Your task to perform on an android device: Add logitech g933 to the cart on amazon Image 0: 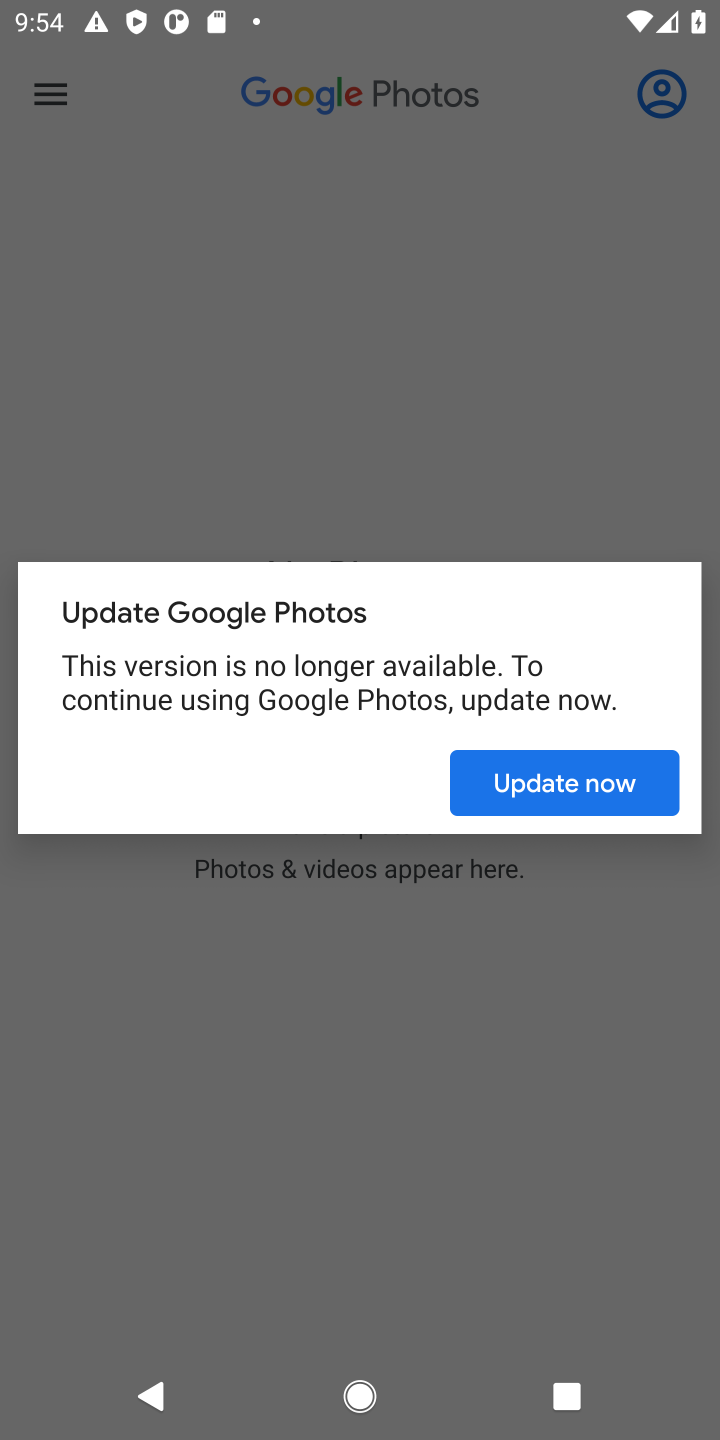
Step 0: press home button
Your task to perform on an android device: Add logitech g933 to the cart on amazon Image 1: 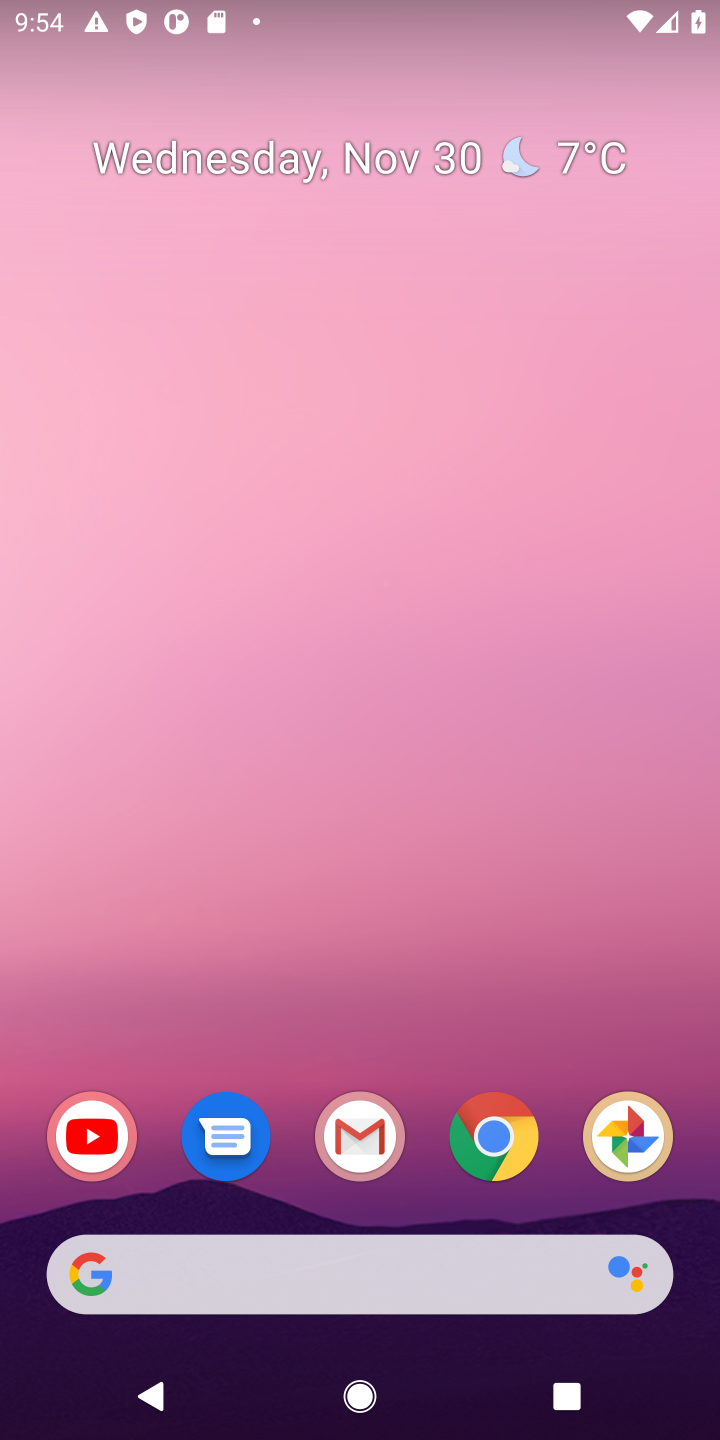
Step 1: click (489, 1154)
Your task to perform on an android device: Add logitech g933 to the cart on amazon Image 2: 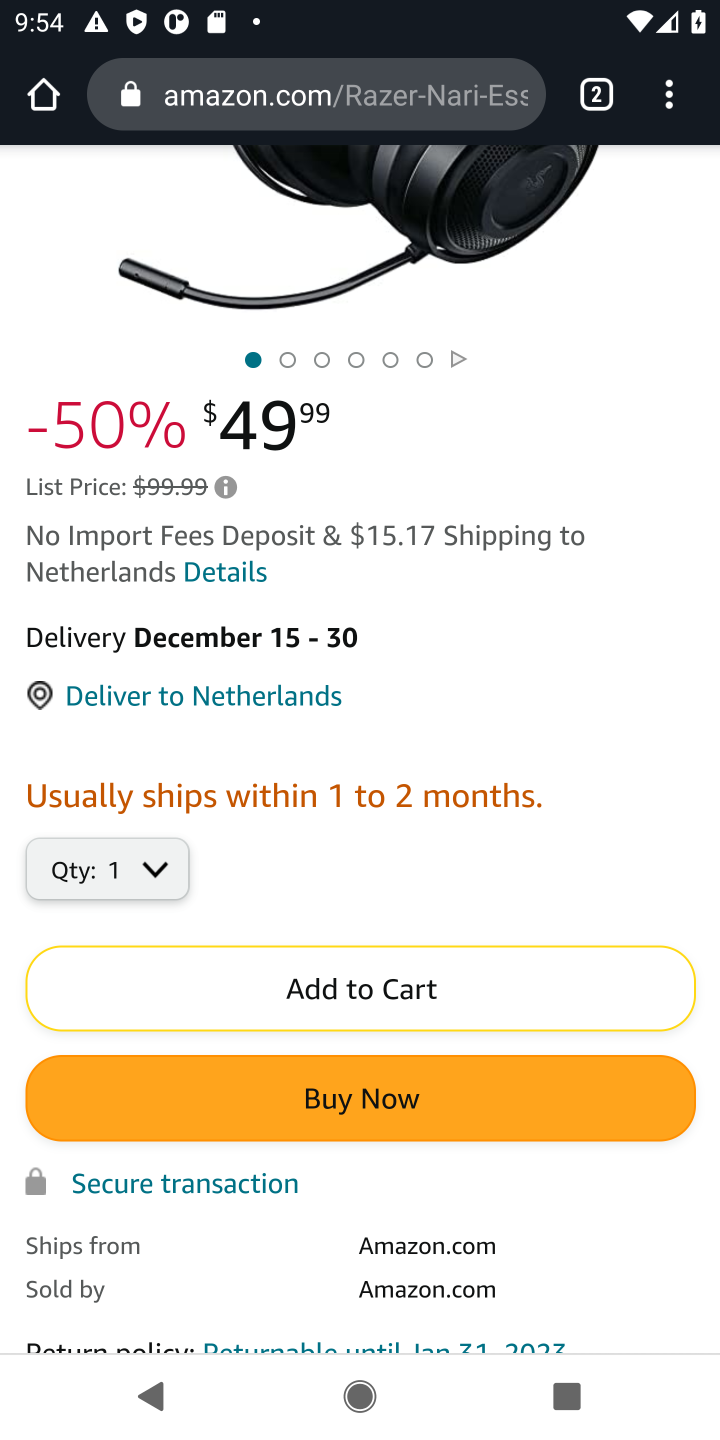
Step 2: drag from (627, 419) to (574, 1123)
Your task to perform on an android device: Add logitech g933 to the cart on amazon Image 3: 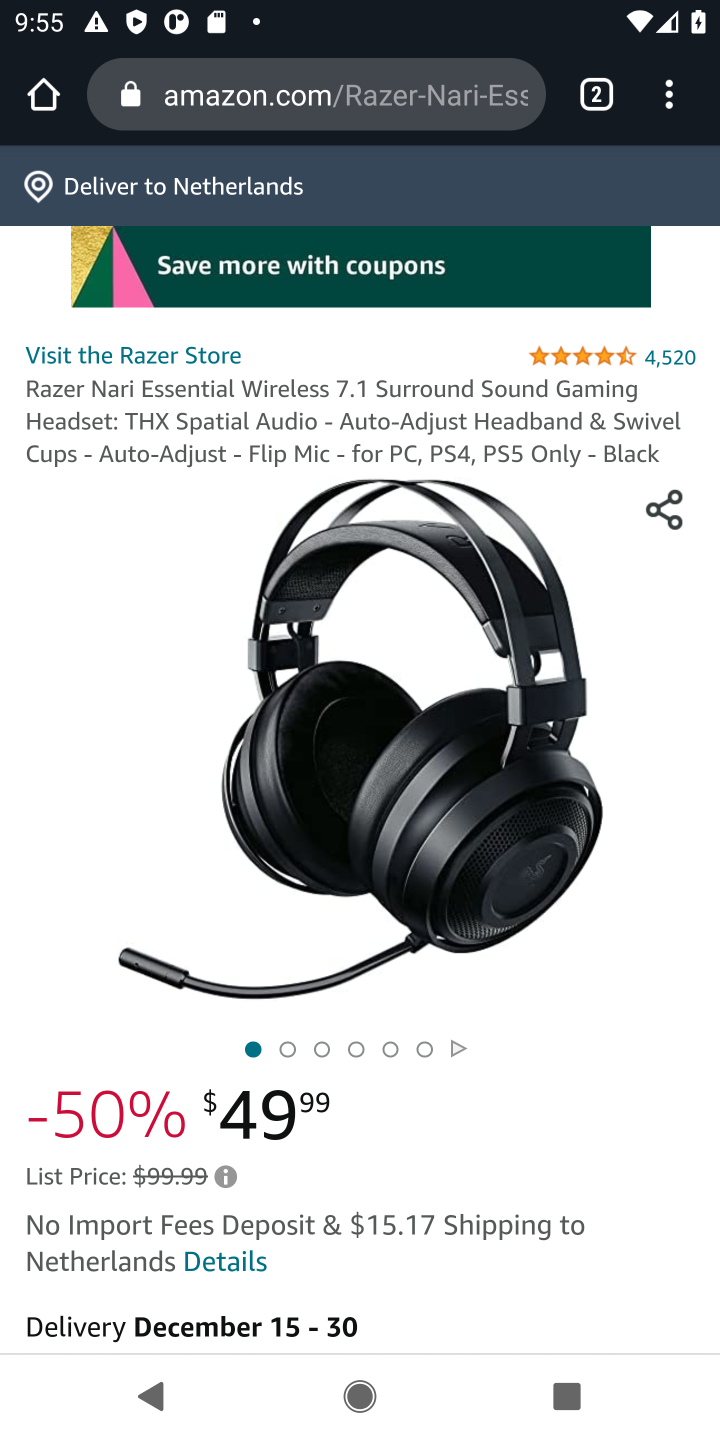
Step 3: drag from (477, 450) to (440, 897)
Your task to perform on an android device: Add logitech g933 to the cart on amazon Image 4: 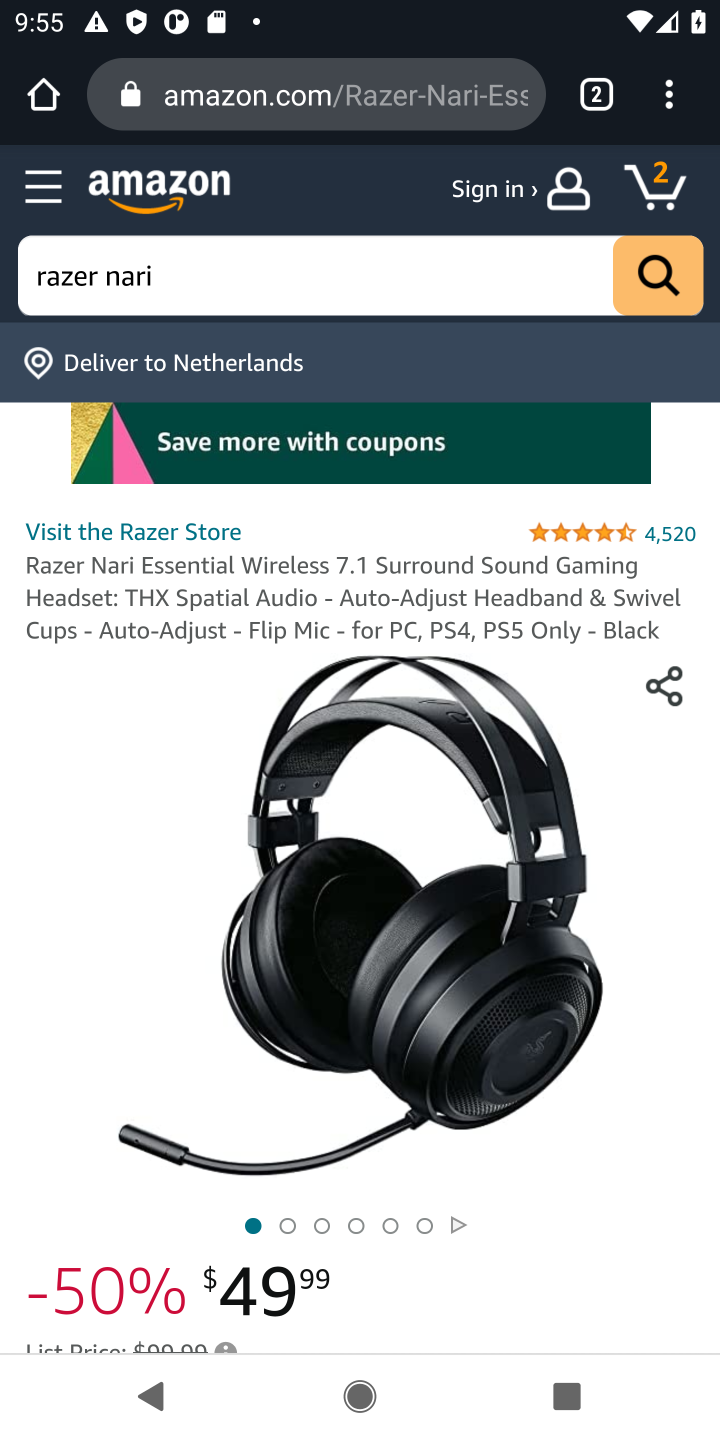
Step 4: click (190, 265)
Your task to perform on an android device: Add logitech g933 to the cart on amazon Image 5: 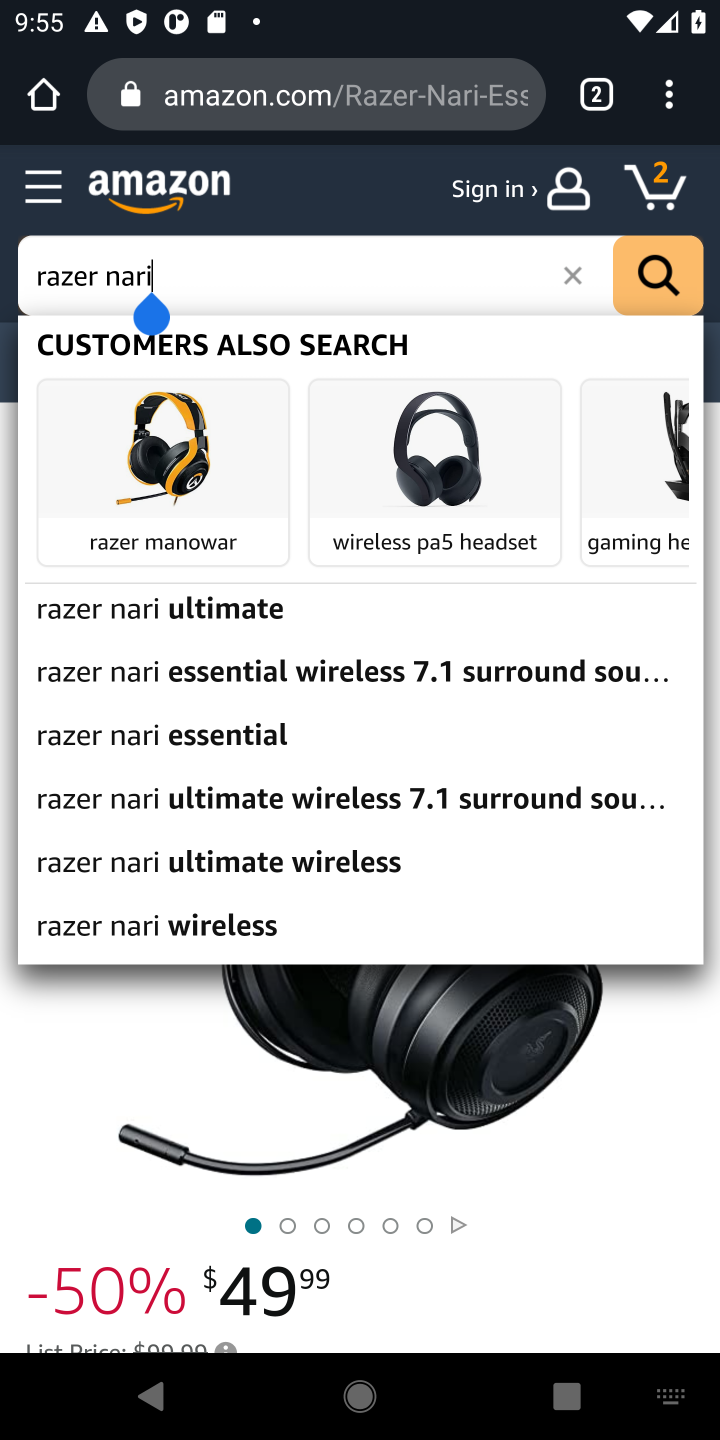
Step 5: click (577, 270)
Your task to perform on an android device: Add logitech g933 to the cart on amazon Image 6: 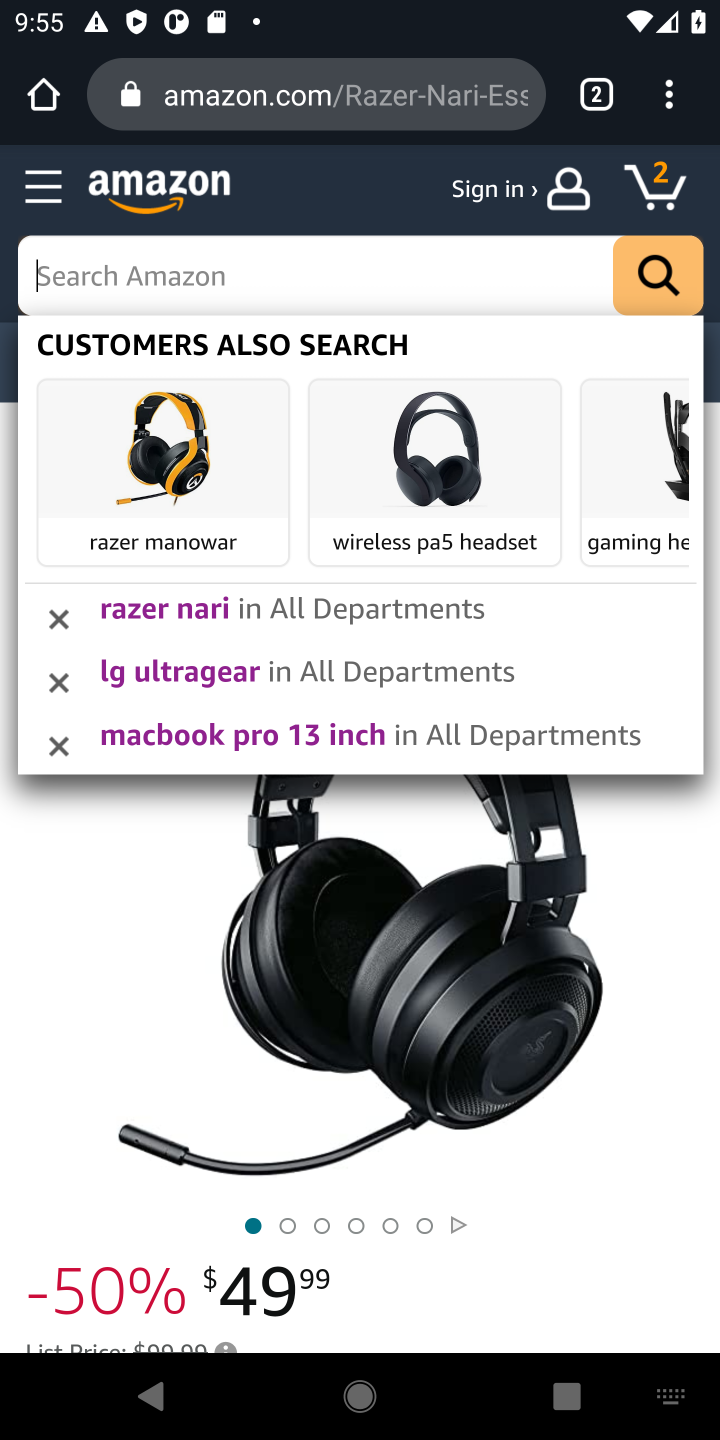
Step 6: type "razer nari"
Your task to perform on an android device: Add logitech g933 to the cart on amazon Image 7: 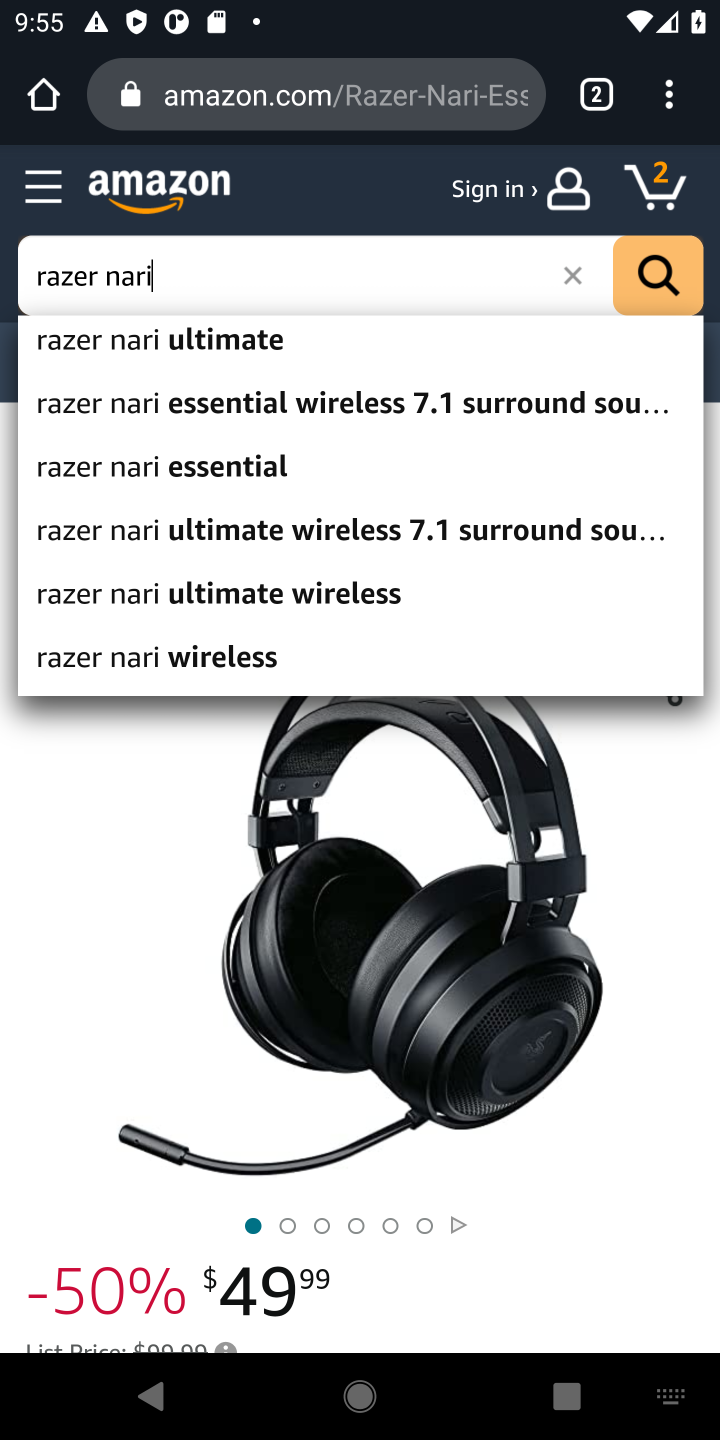
Step 7: click (585, 282)
Your task to perform on an android device: Add logitech g933 to the cart on amazon Image 8: 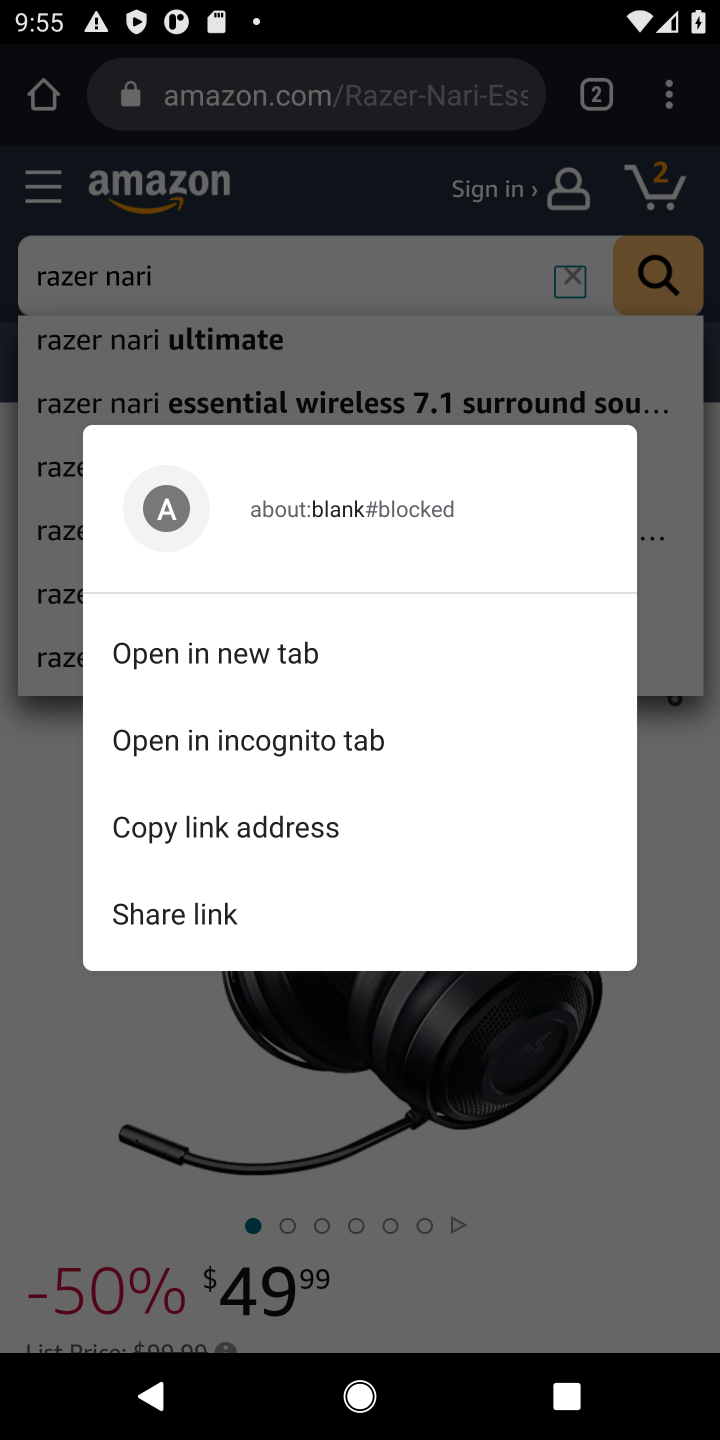
Step 8: click (577, 285)
Your task to perform on an android device: Add logitech g933 to the cart on amazon Image 9: 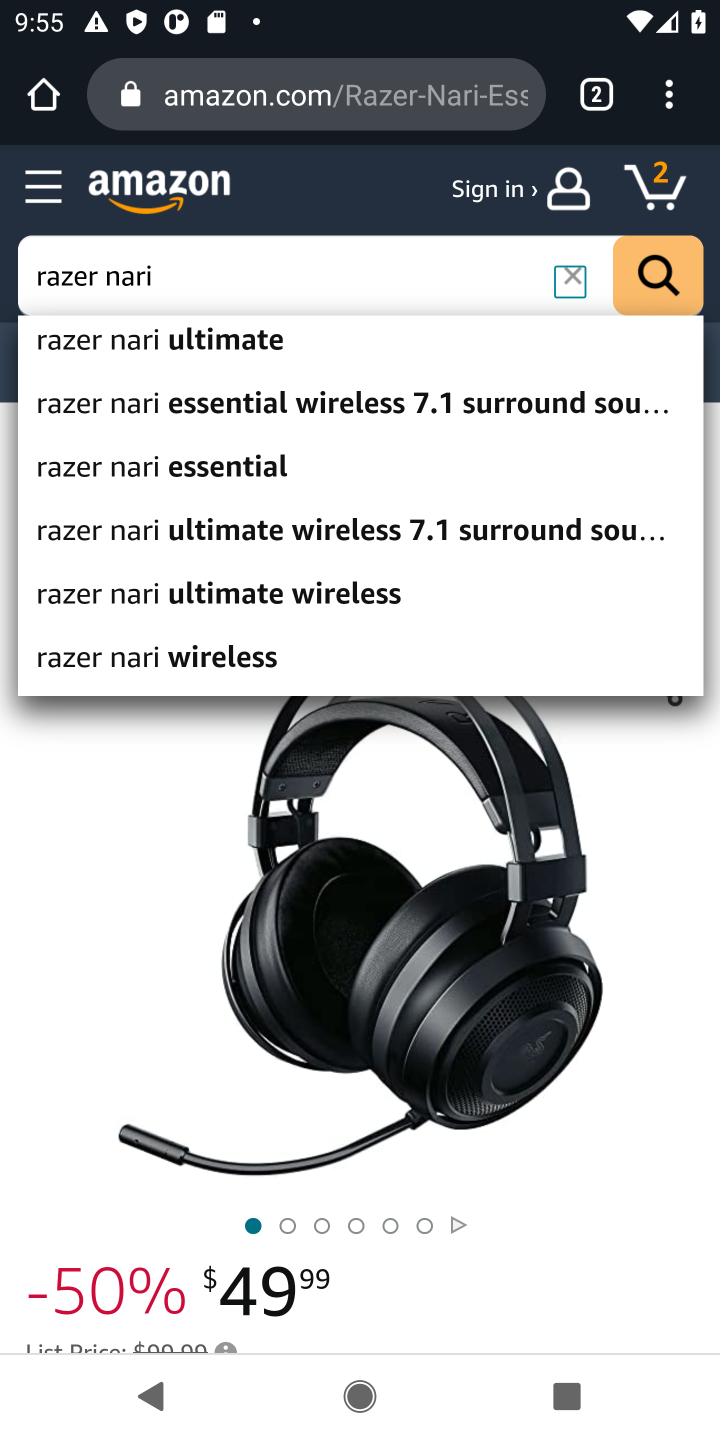
Step 9: click (577, 276)
Your task to perform on an android device: Add logitech g933 to the cart on amazon Image 10: 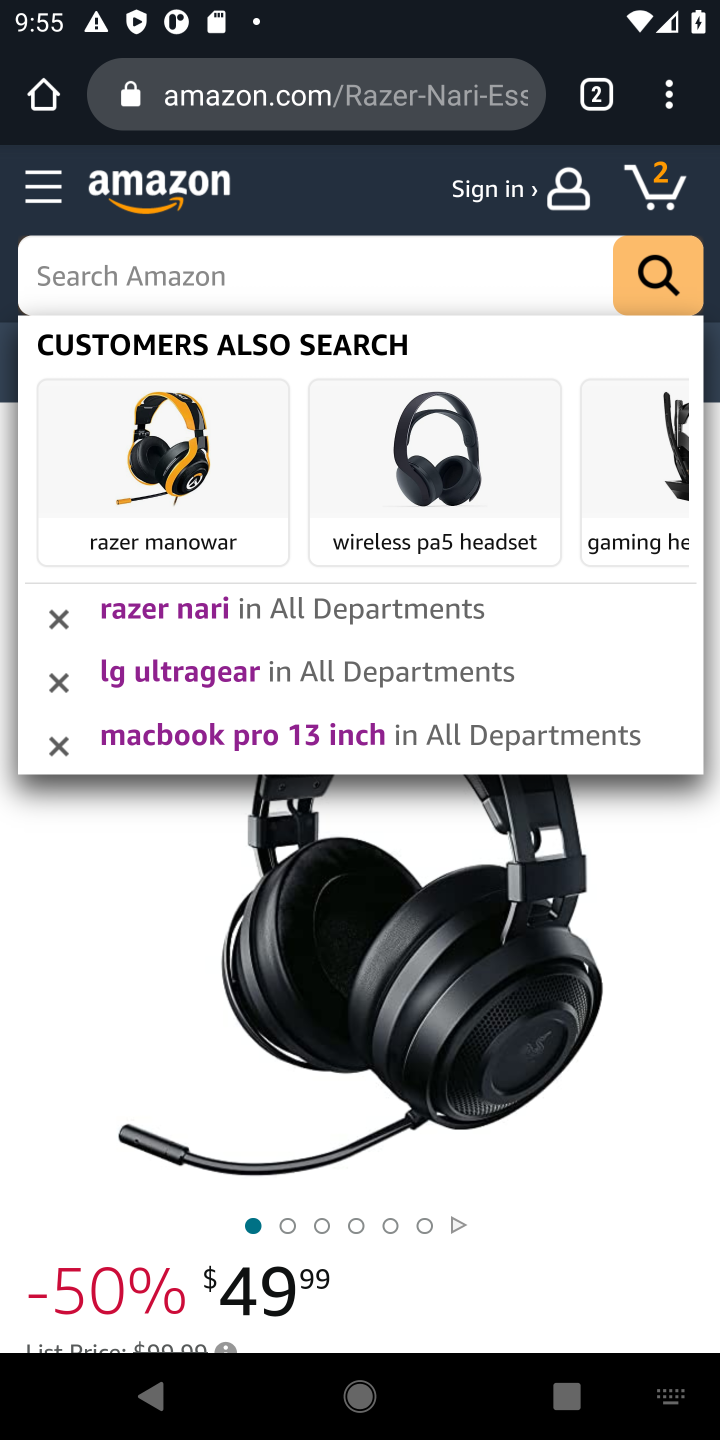
Step 10: type "logitech g933"
Your task to perform on an android device: Add logitech g933 to the cart on amazon Image 11: 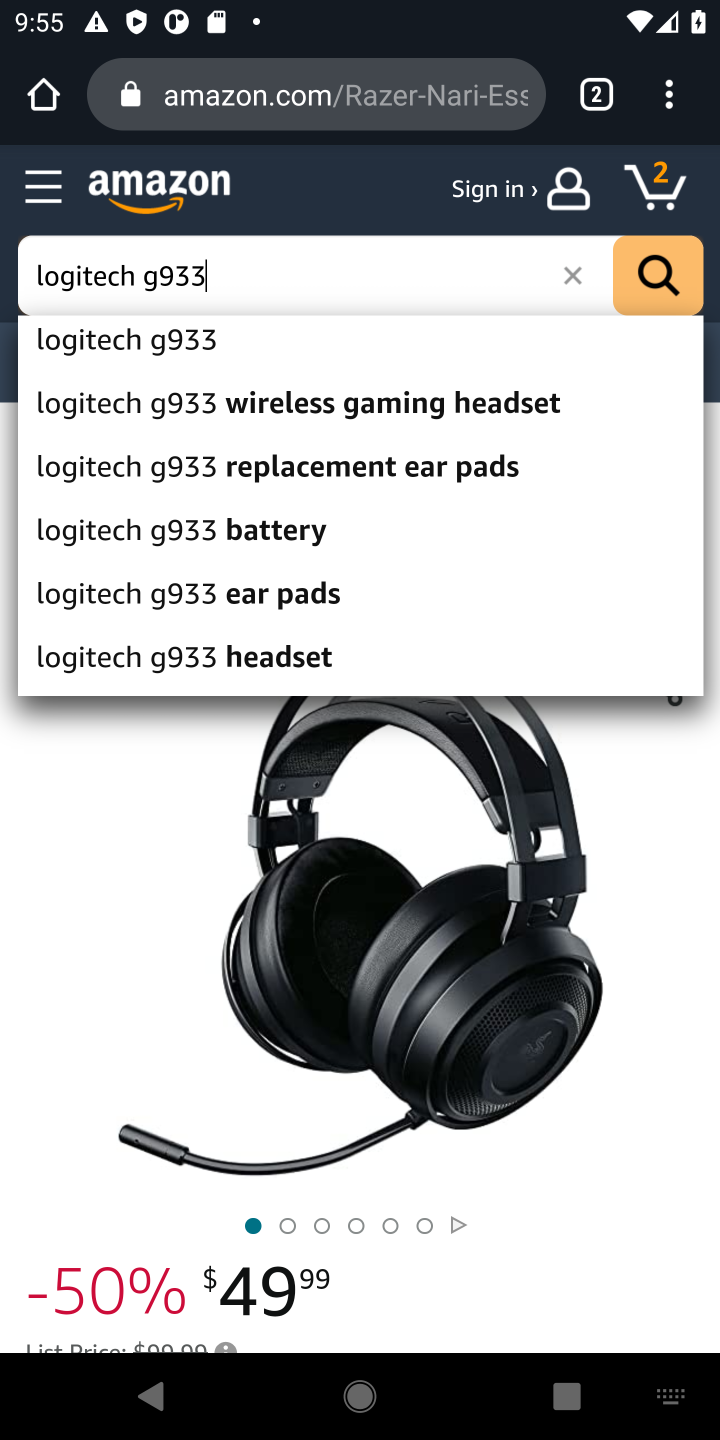
Step 11: click (83, 343)
Your task to perform on an android device: Add logitech g933 to the cart on amazon Image 12: 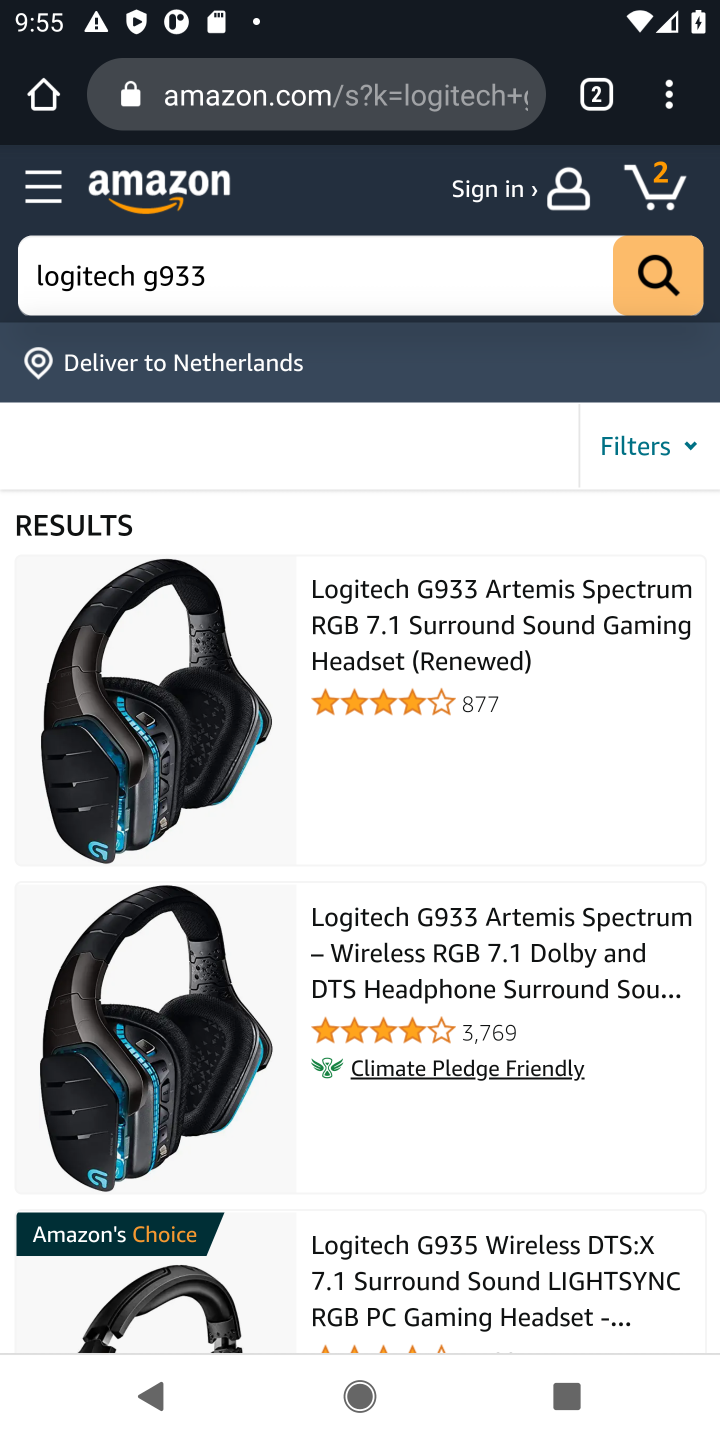
Step 12: drag from (302, 1016) to (214, 480)
Your task to perform on an android device: Add logitech g933 to the cart on amazon Image 13: 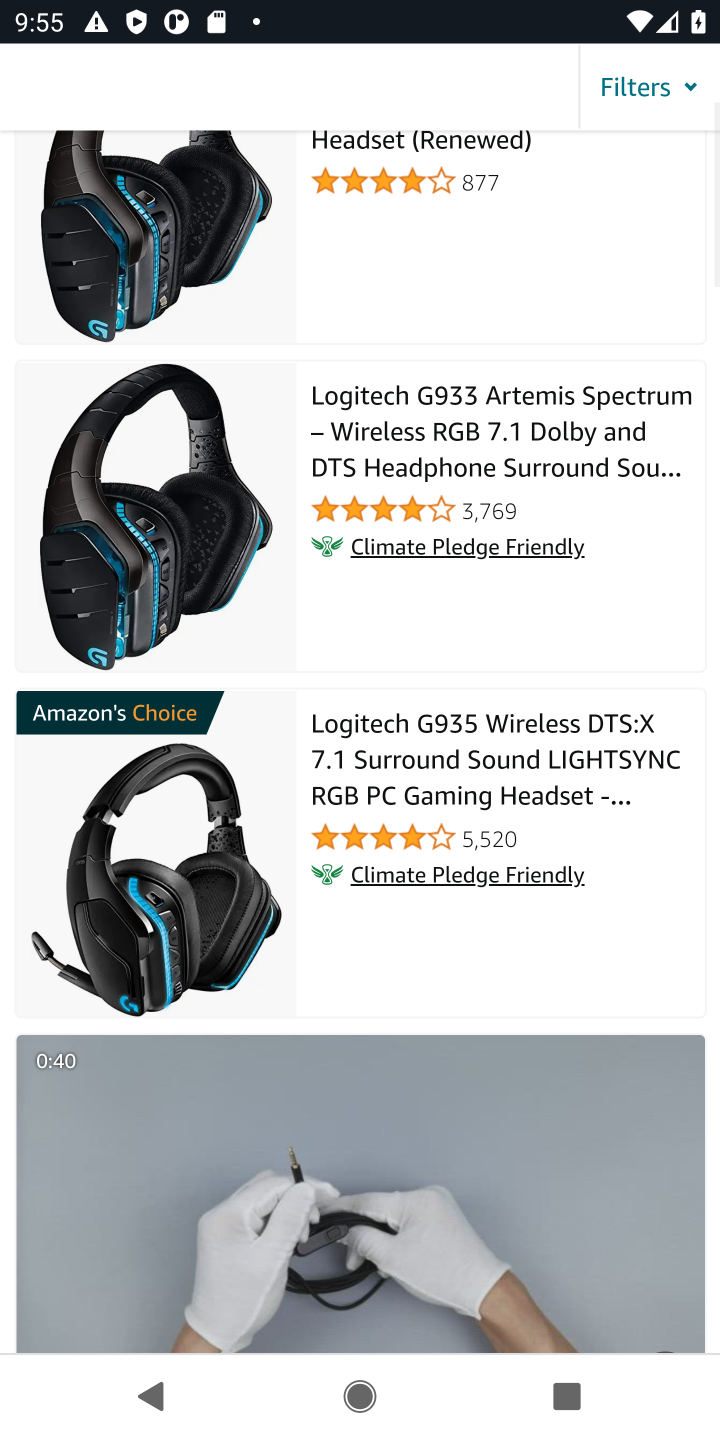
Step 13: drag from (273, 1045) to (149, 292)
Your task to perform on an android device: Add logitech g933 to the cart on amazon Image 14: 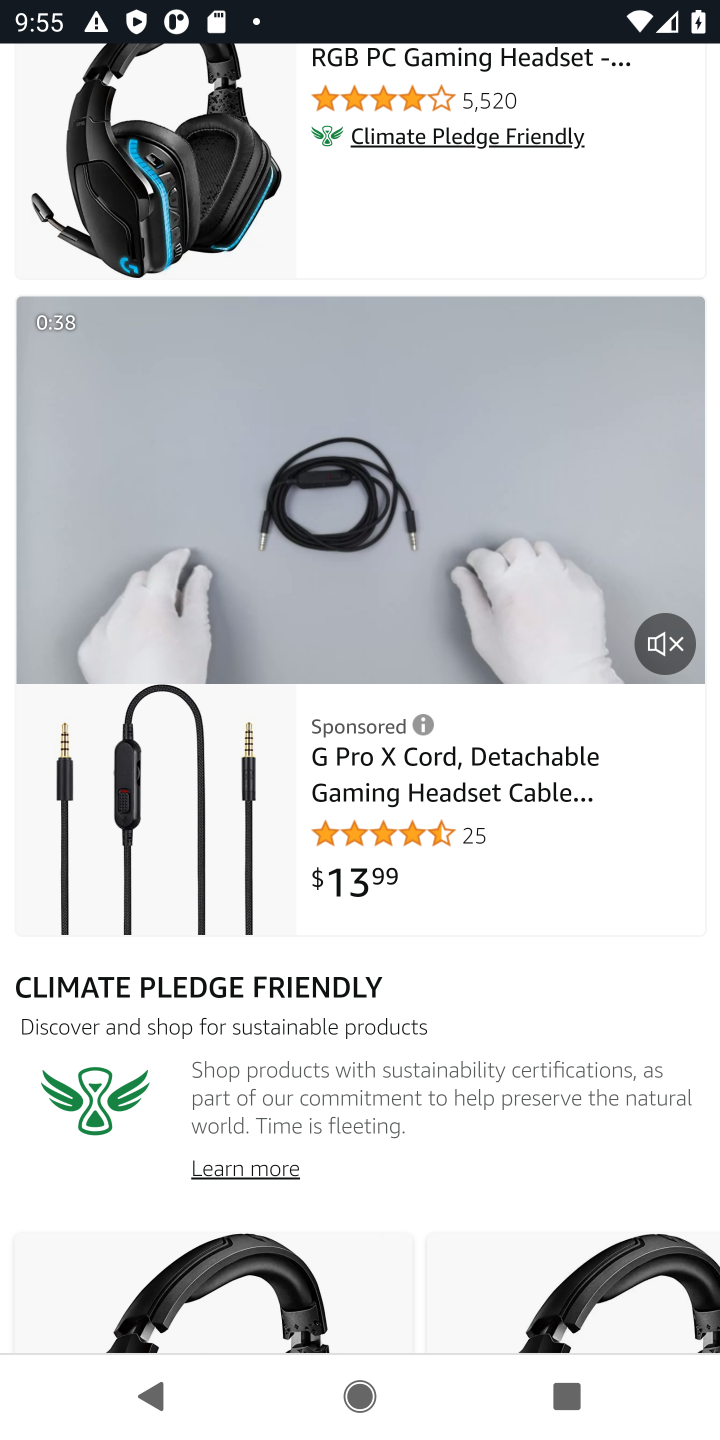
Step 14: drag from (268, 993) to (145, 397)
Your task to perform on an android device: Add logitech g933 to the cart on amazon Image 15: 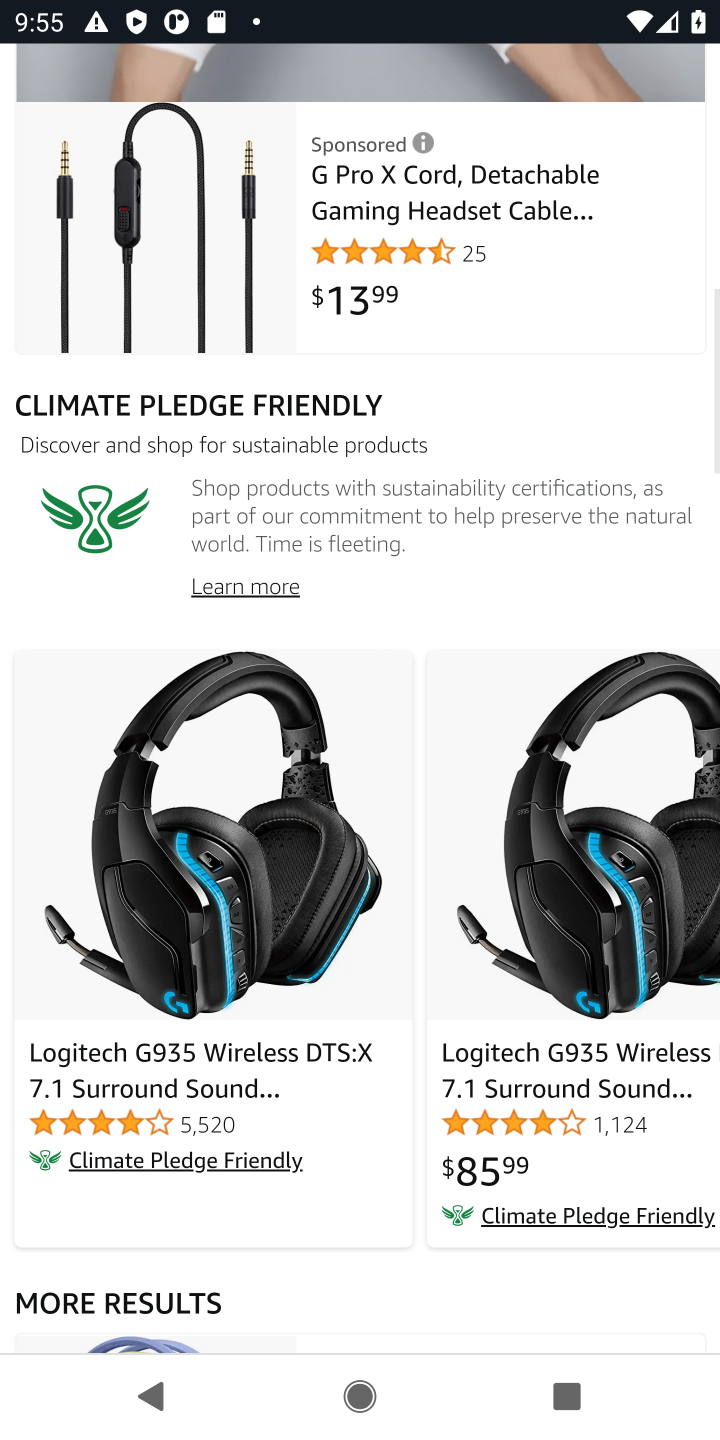
Step 15: drag from (284, 1000) to (175, 488)
Your task to perform on an android device: Add logitech g933 to the cart on amazon Image 16: 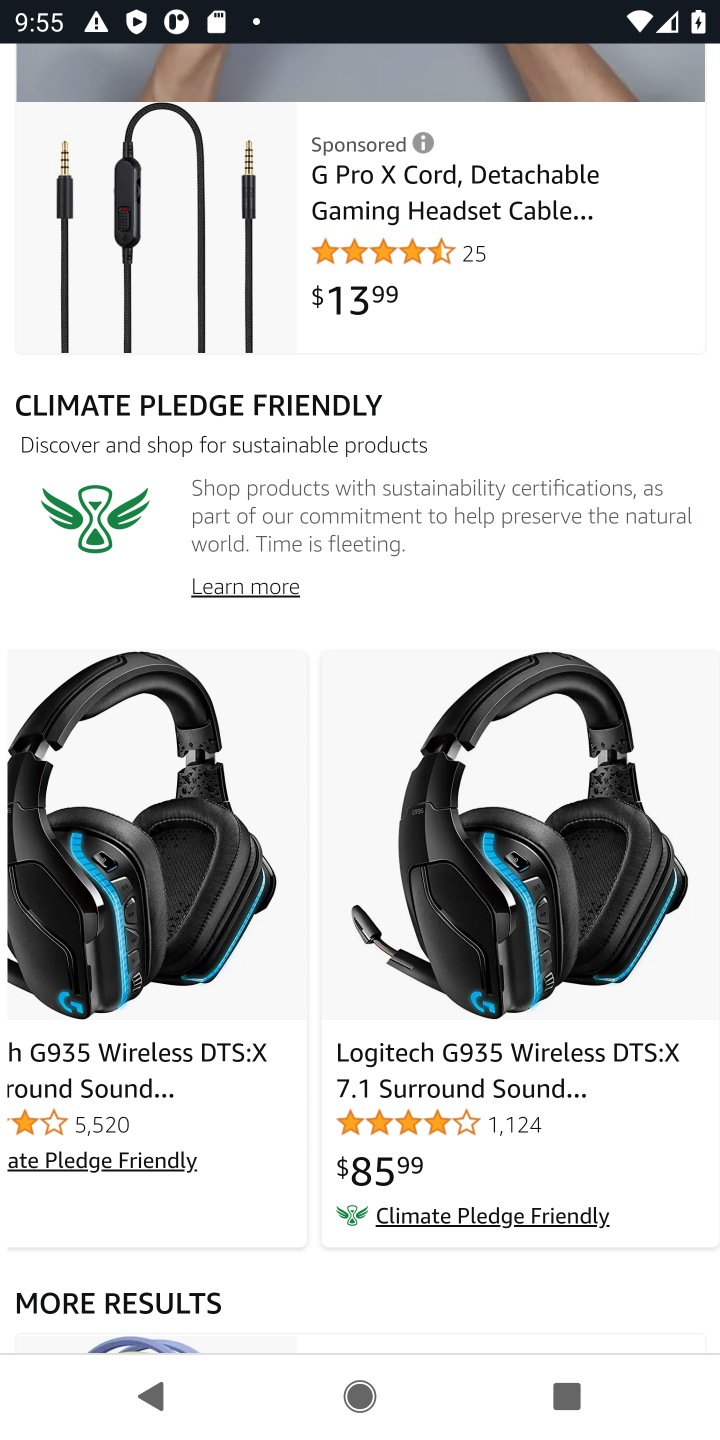
Step 16: drag from (191, 746) to (206, 1156)
Your task to perform on an android device: Add logitech g933 to the cart on amazon Image 17: 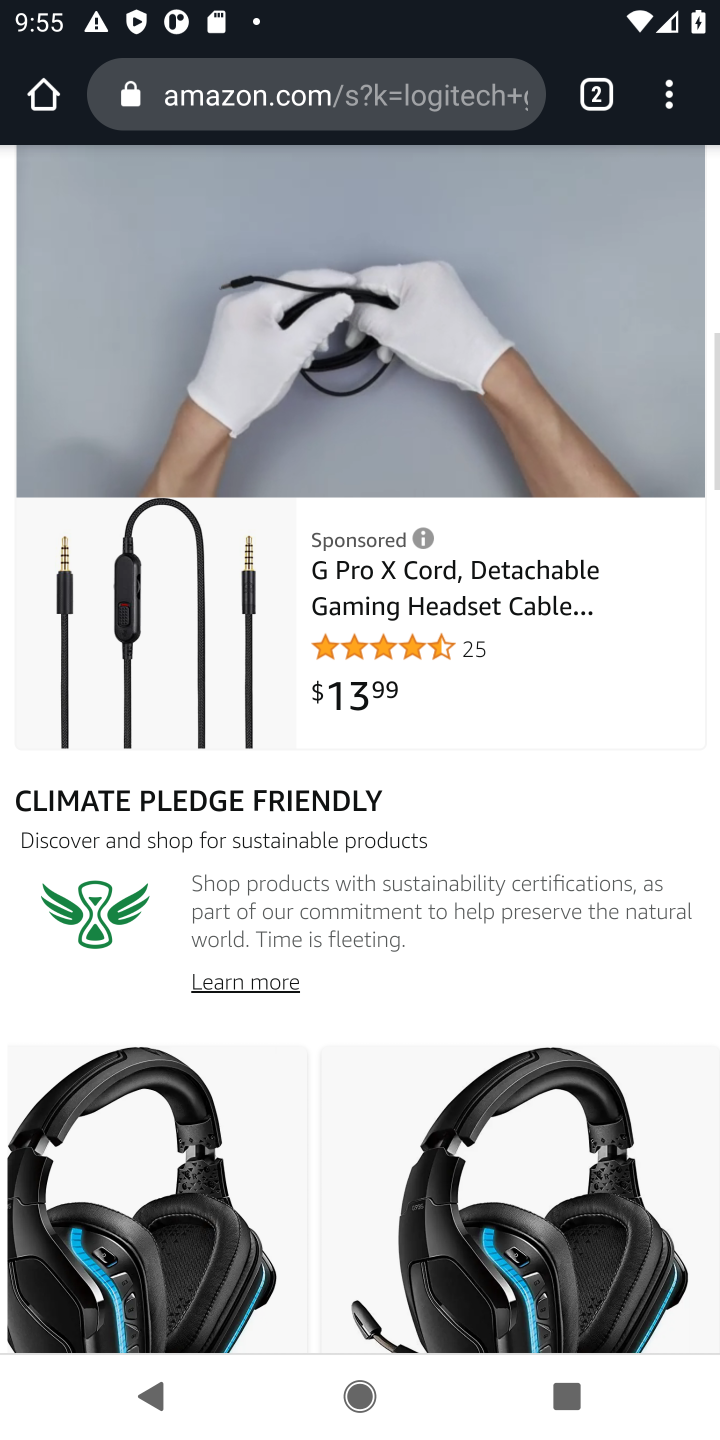
Step 17: click (206, 1156)
Your task to perform on an android device: Add logitech g933 to the cart on amazon Image 18: 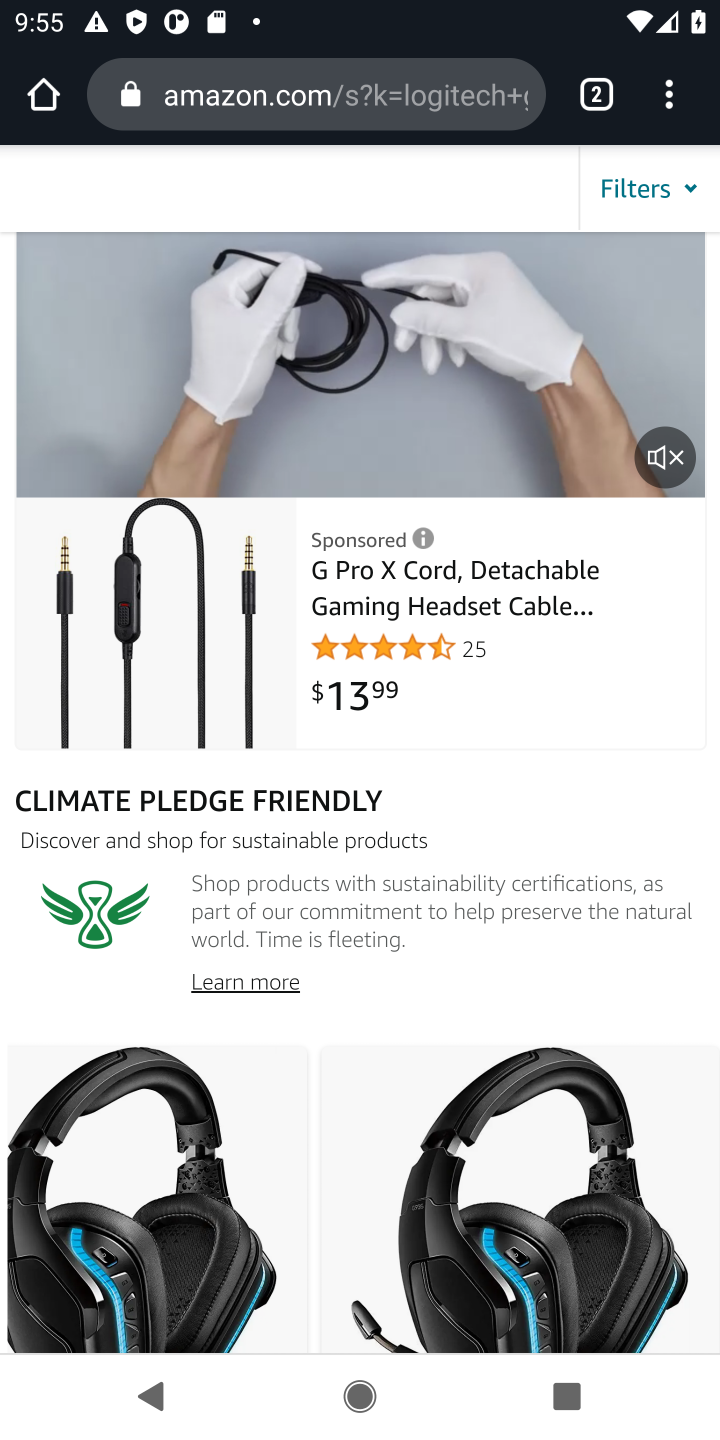
Step 18: drag from (190, 1048) to (163, 476)
Your task to perform on an android device: Add logitech g933 to the cart on amazon Image 19: 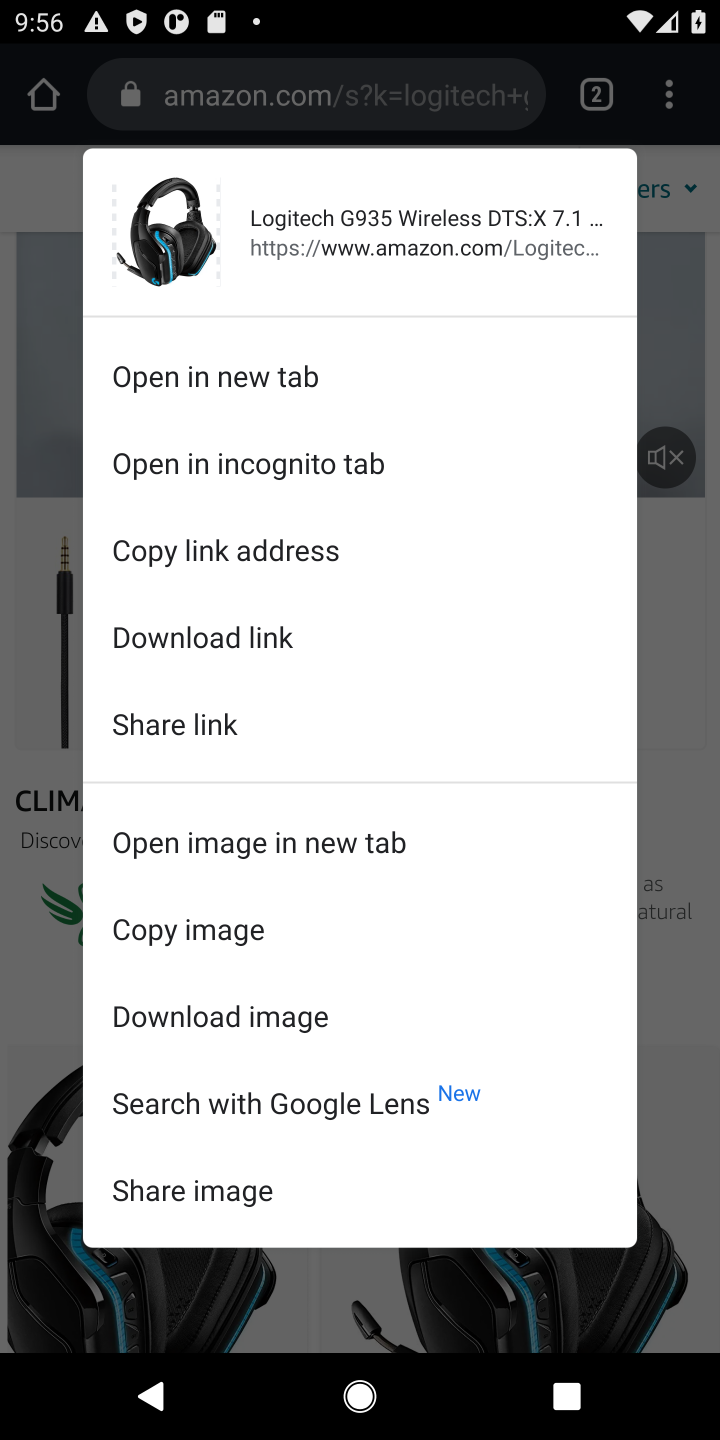
Step 19: click (653, 882)
Your task to perform on an android device: Add logitech g933 to the cart on amazon Image 20: 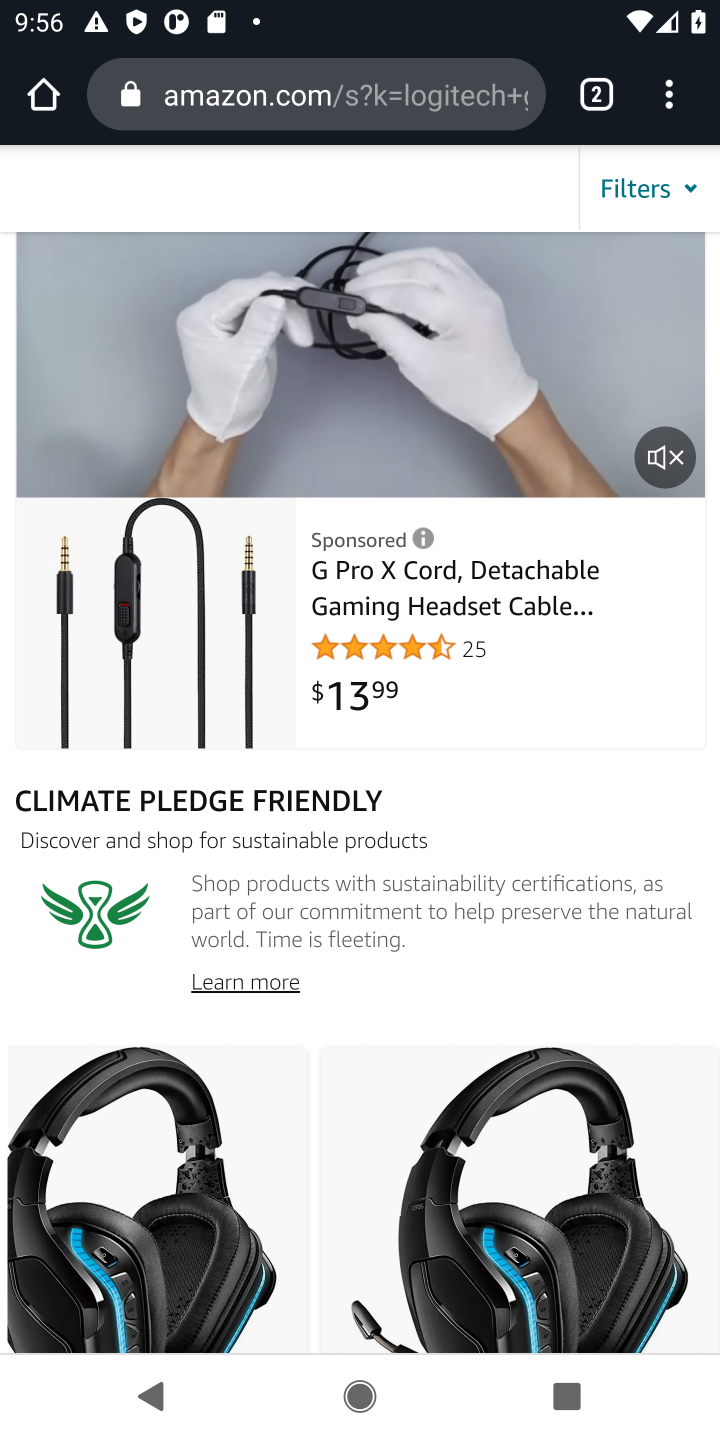
Step 20: drag from (449, 1240) to (313, 190)
Your task to perform on an android device: Add logitech g933 to the cart on amazon Image 21: 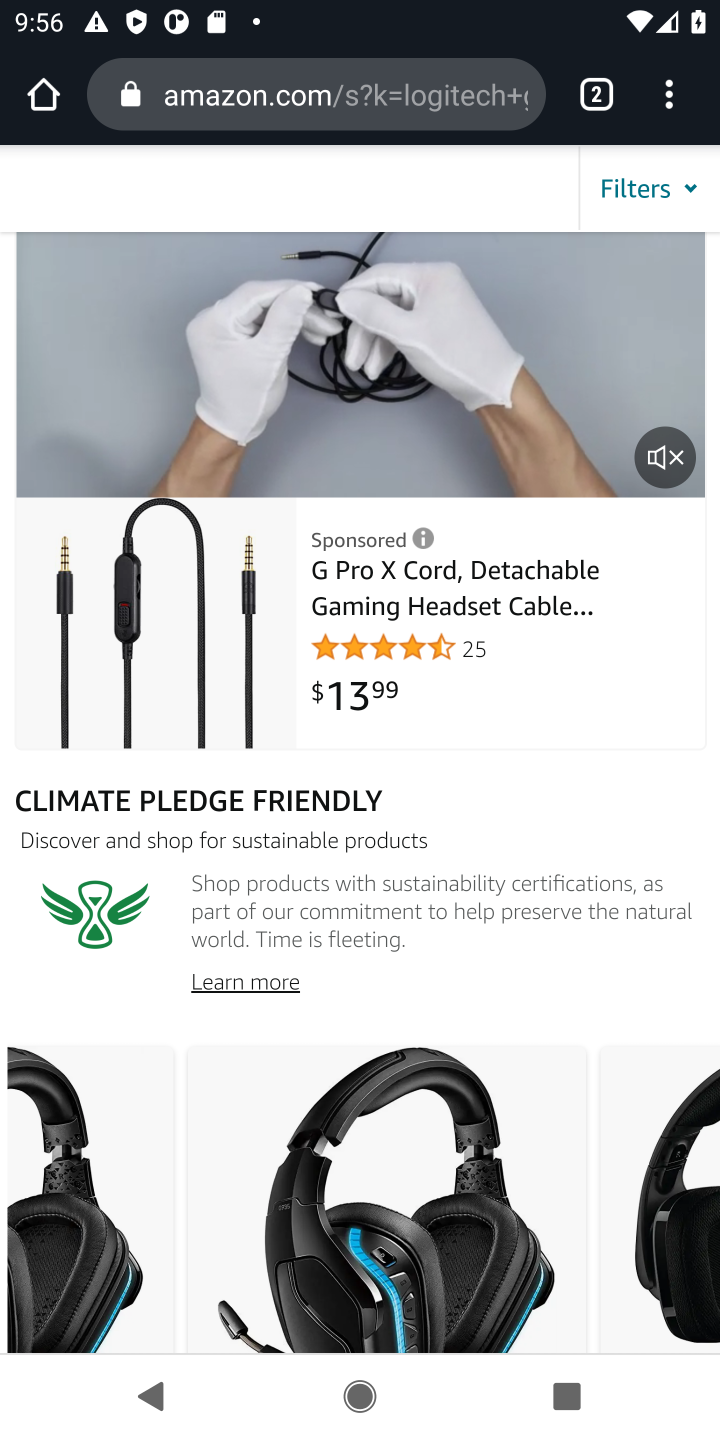
Step 21: drag from (348, 1028) to (319, 555)
Your task to perform on an android device: Add logitech g933 to the cart on amazon Image 22: 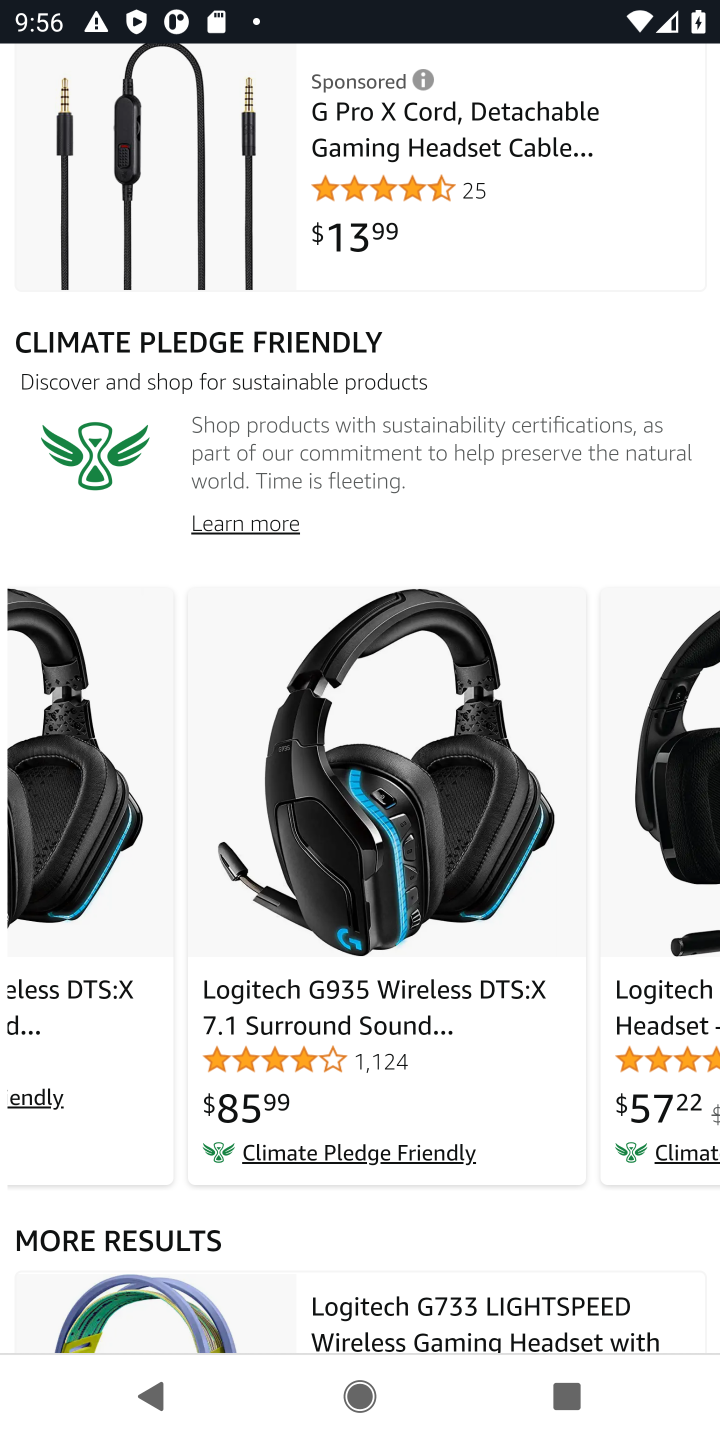
Step 22: drag from (541, 926) to (490, 312)
Your task to perform on an android device: Add logitech g933 to the cart on amazon Image 23: 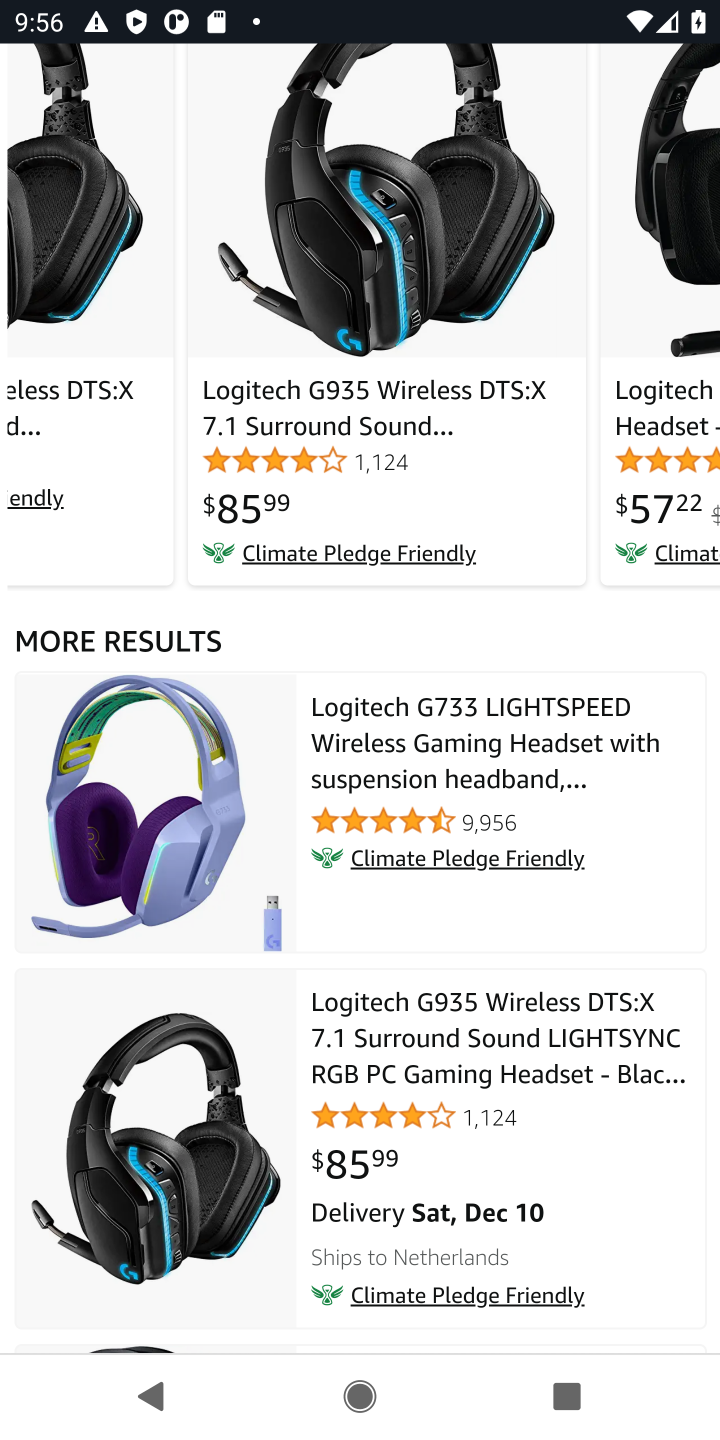
Step 23: drag from (485, 751) to (449, 464)
Your task to perform on an android device: Add logitech g933 to the cart on amazon Image 24: 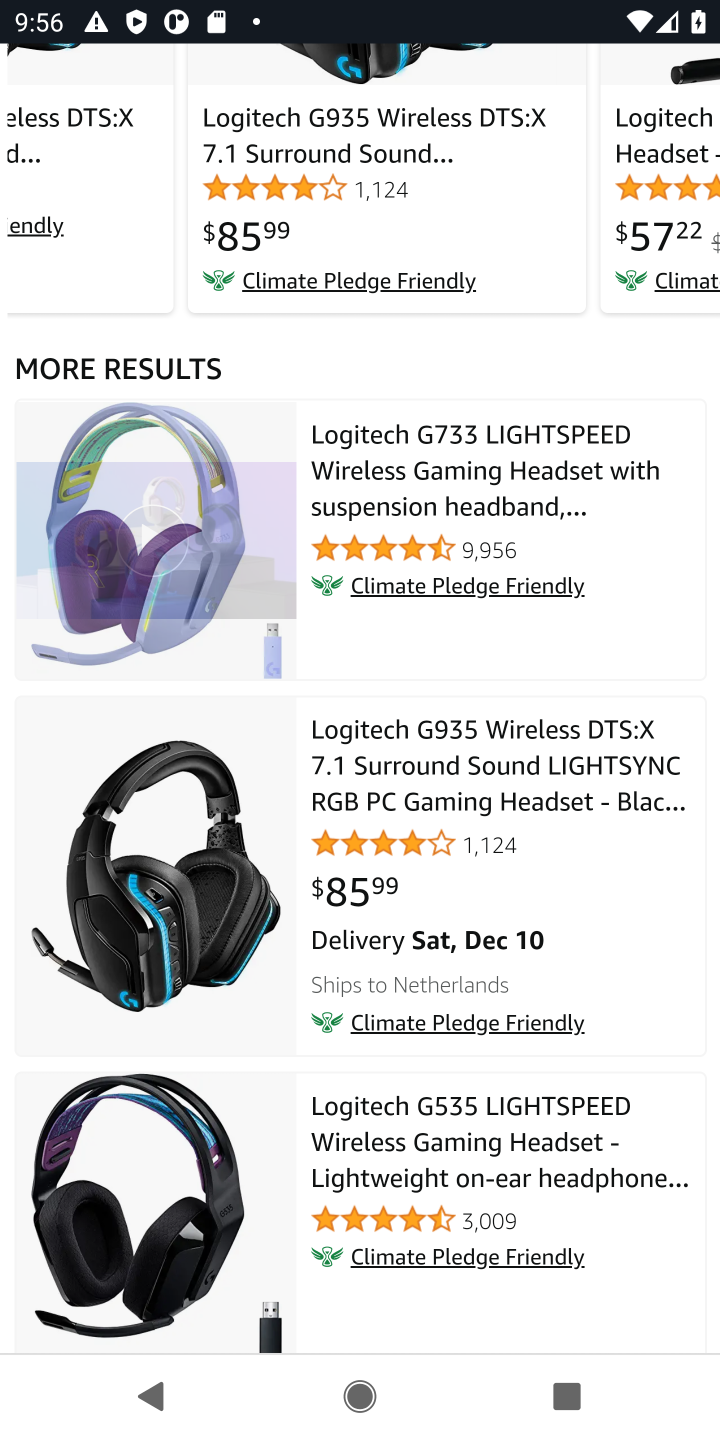
Step 24: drag from (453, 1083) to (393, 566)
Your task to perform on an android device: Add logitech g933 to the cart on amazon Image 25: 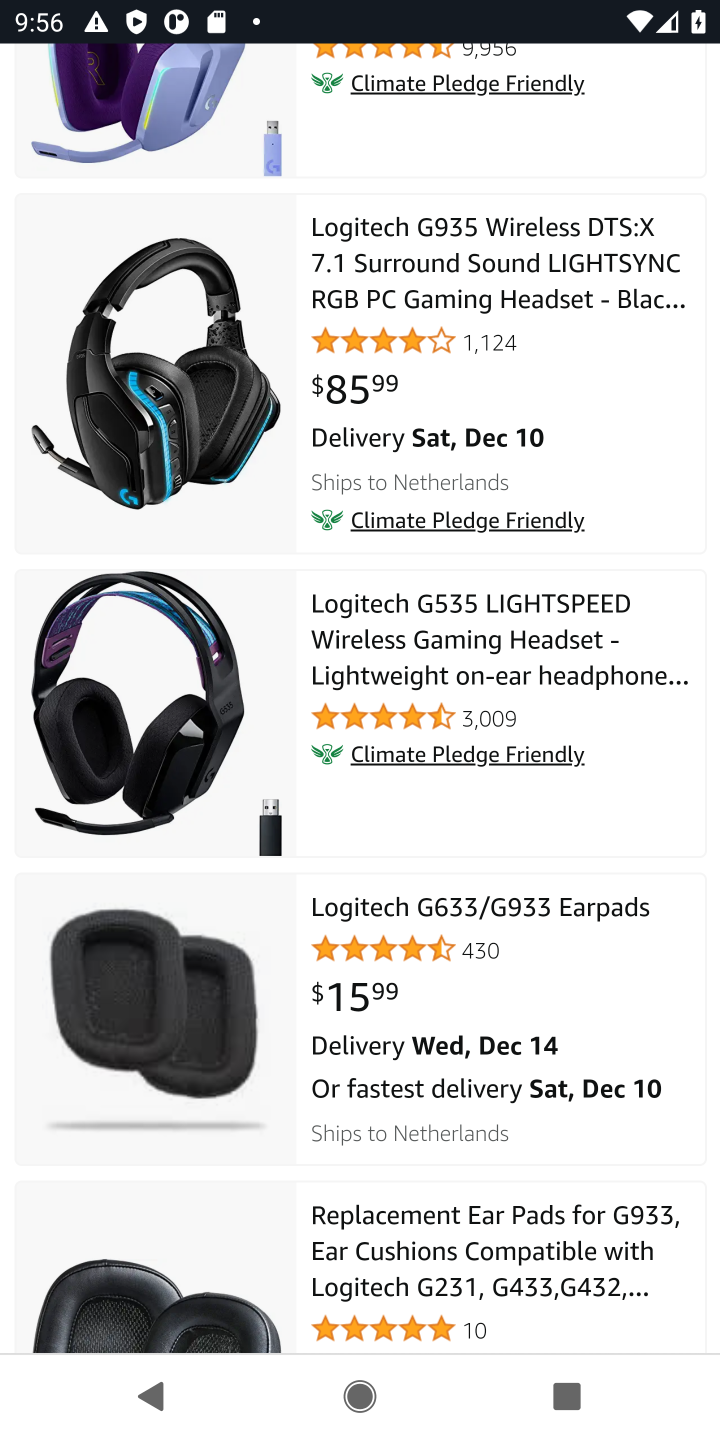
Step 25: drag from (522, 1236) to (433, 713)
Your task to perform on an android device: Add logitech g933 to the cart on amazon Image 26: 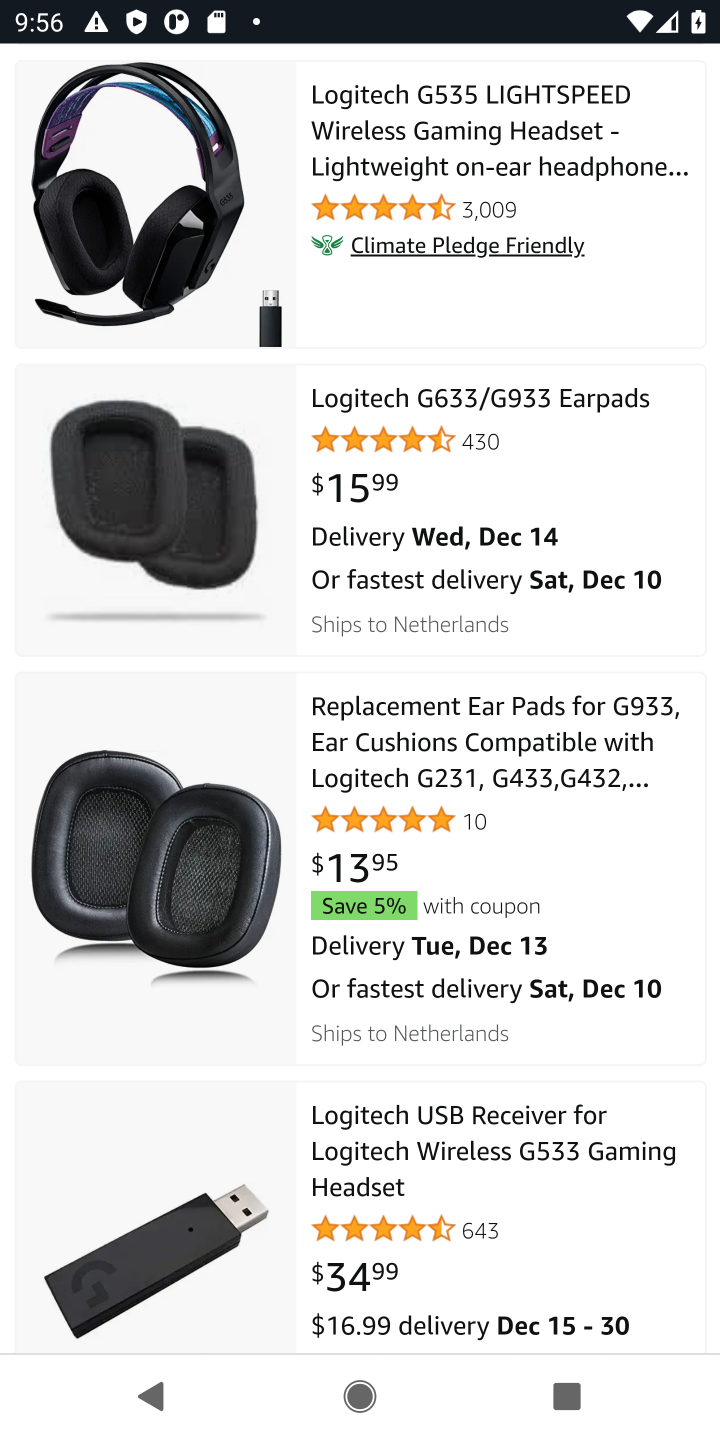
Step 26: click (349, 792)
Your task to perform on an android device: Add logitech g933 to the cart on amazon Image 27: 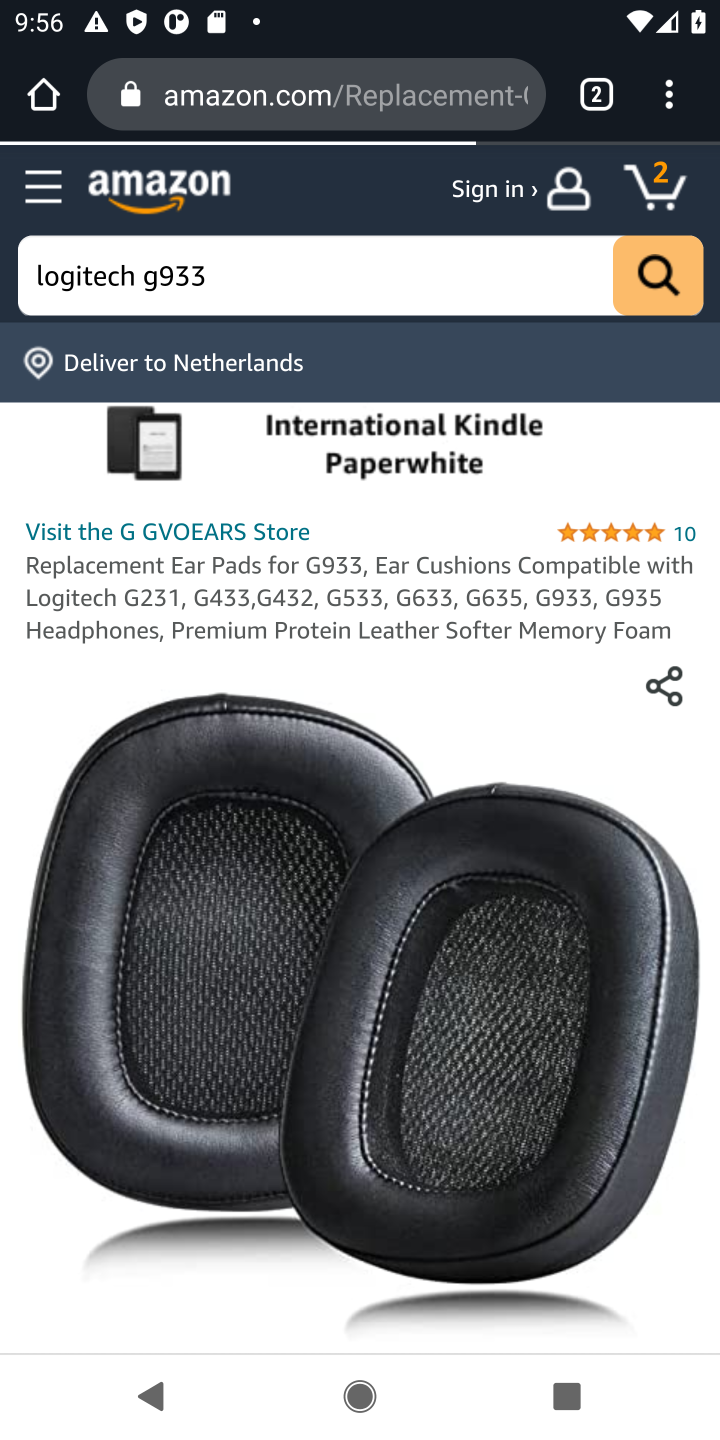
Step 27: drag from (381, 956) to (314, 509)
Your task to perform on an android device: Add logitech g933 to the cart on amazon Image 28: 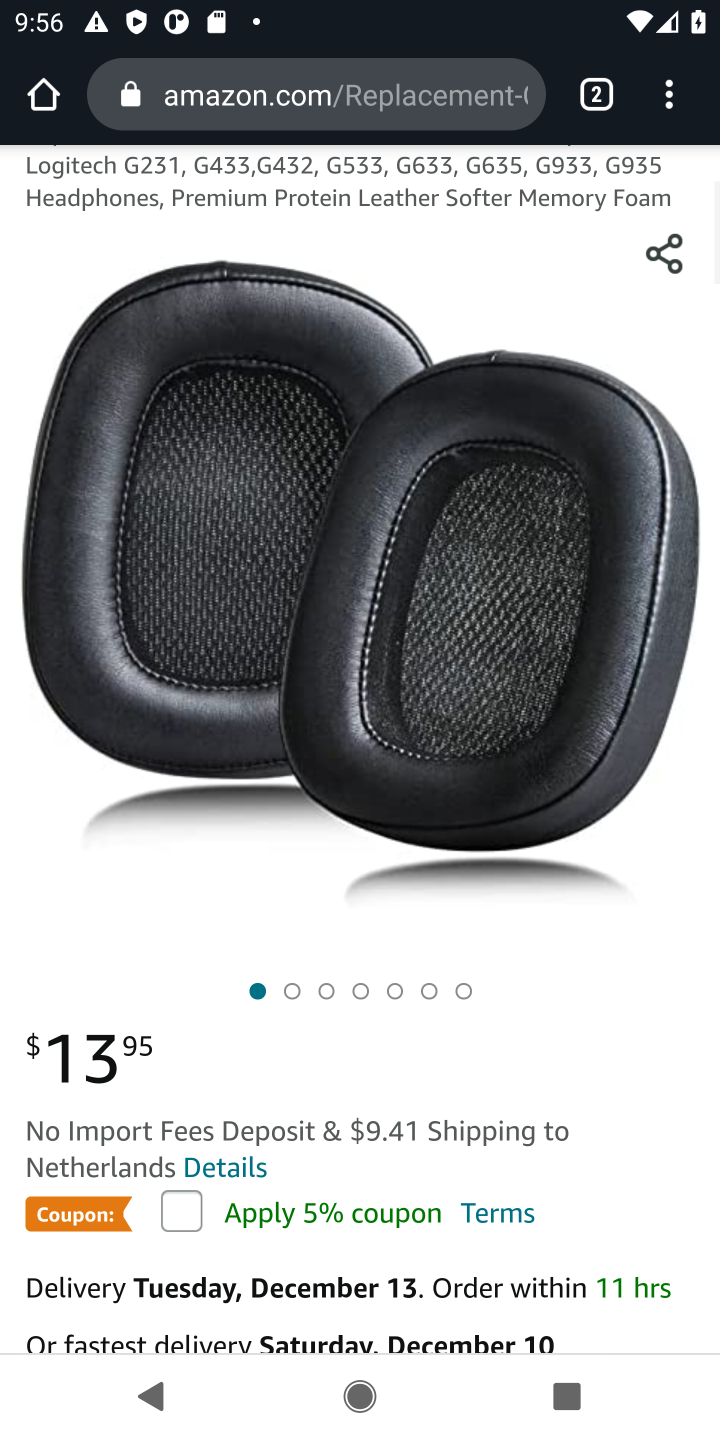
Step 28: drag from (364, 974) to (263, 284)
Your task to perform on an android device: Add logitech g933 to the cart on amazon Image 29: 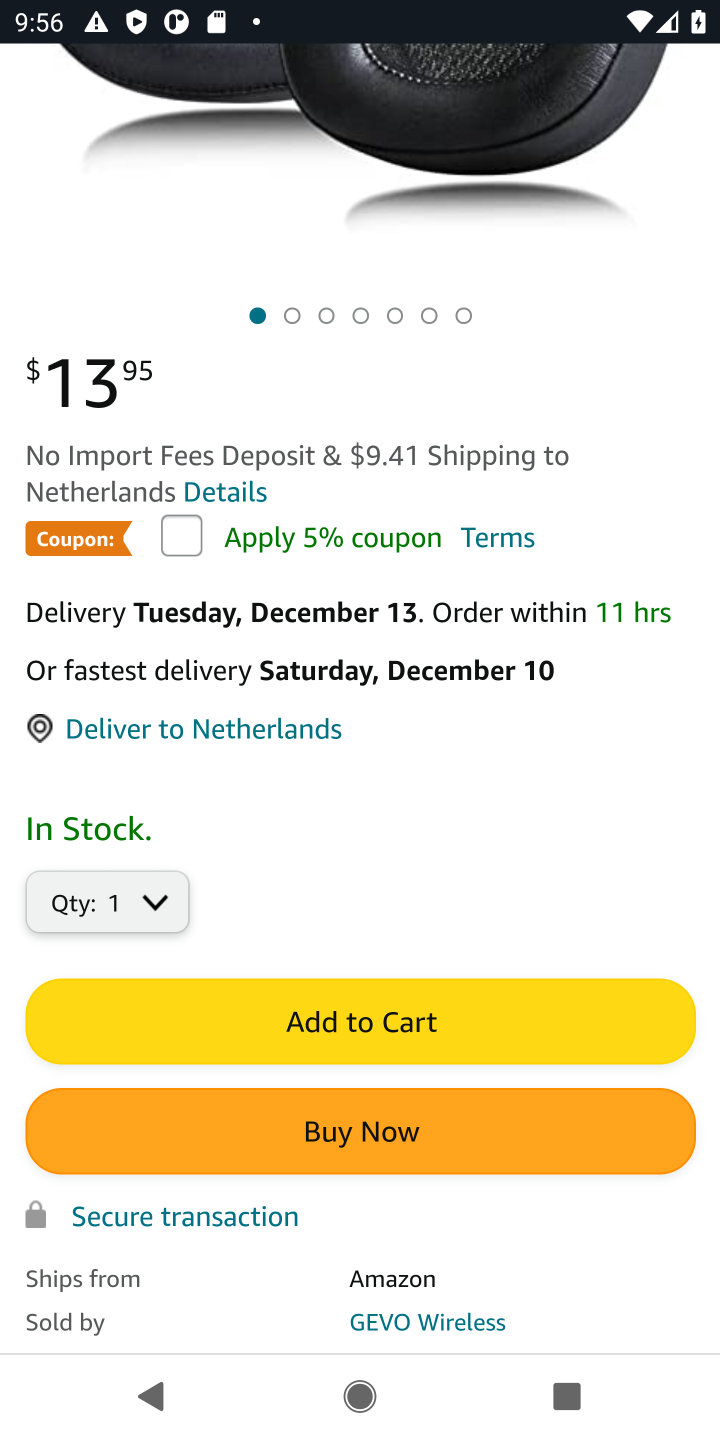
Step 29: click (339, 1026)
Your task to perform on an android device: Add logitech g933 to the cart on amazon Image 30: 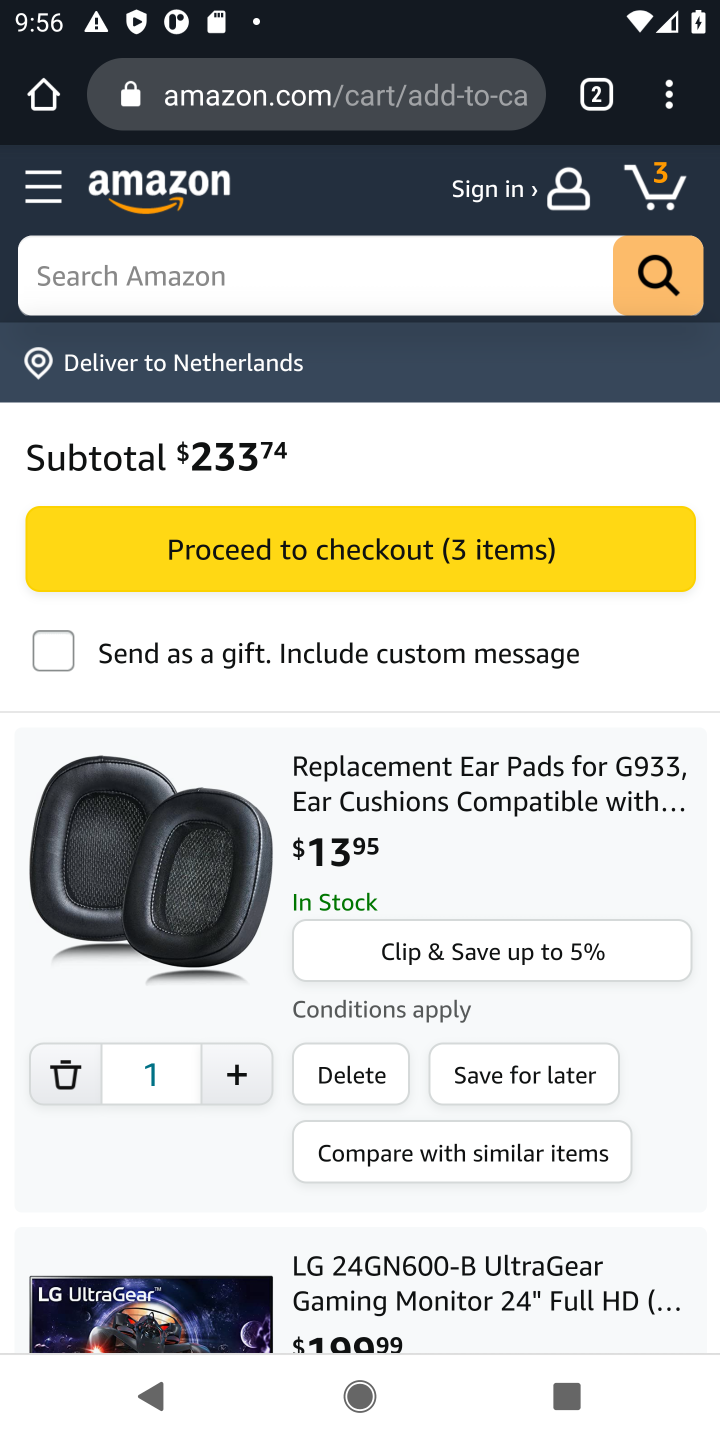
Step 30: task complete